Your task to perform on an android device: What is the recent news? Image 0: 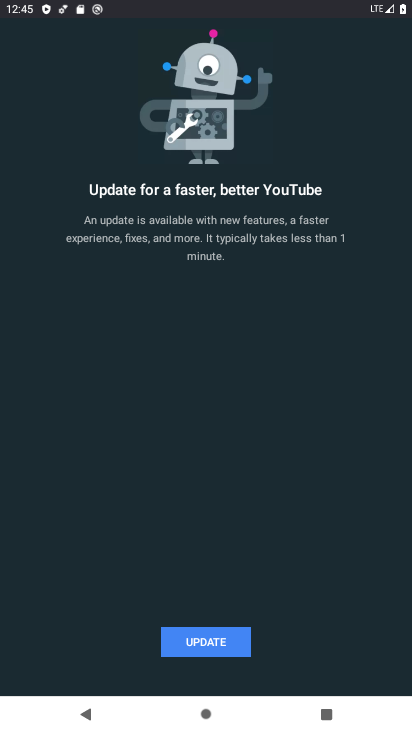
Step 0: press home button
Your task to perform on an android device: What is the recent news? Image 1: 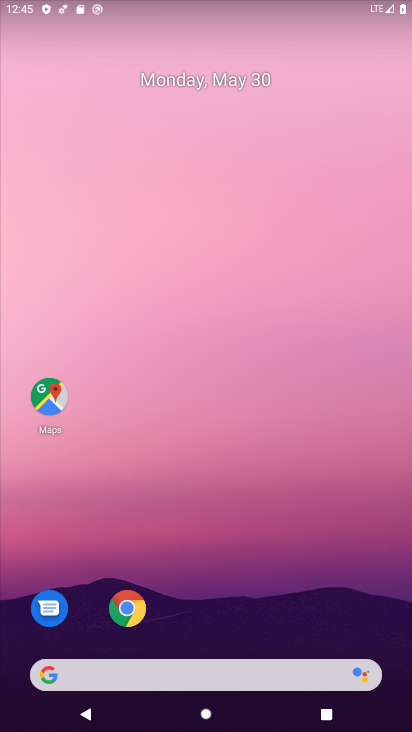
Step 1: click (180, 670)
Your task to perform on an android device: What is the recent news? Image 2: 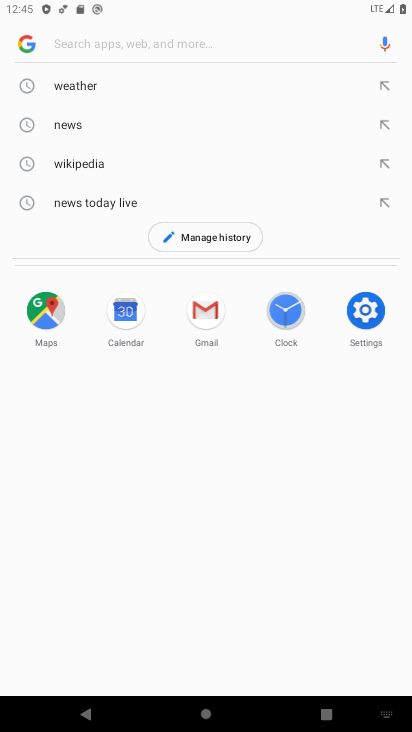
Step 2: type "recent news"
Your task to perform on an android device: What is the recent news? Image 3: 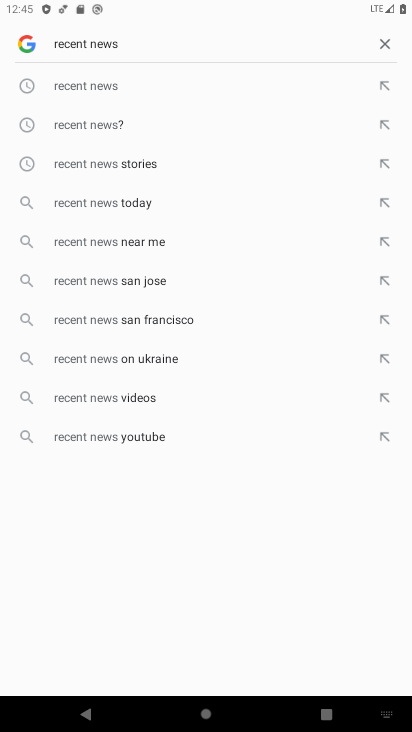
Step 3: click (126, 123)
Your task to perform on an android device: What is the recent news? Image 4: 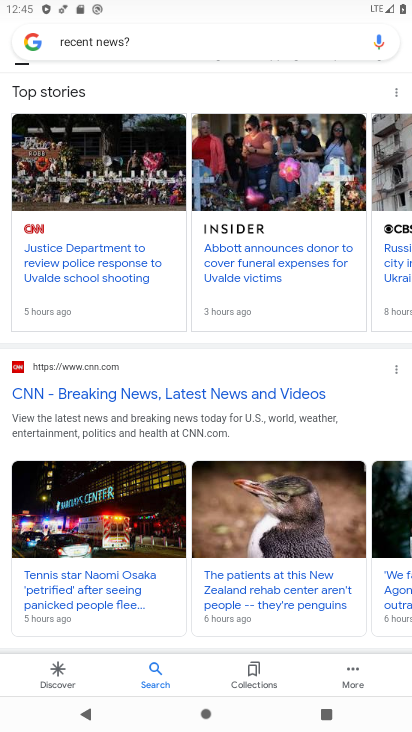
Step 4: task complete